Your task to perform on an android device: add a contact in the contacts app Image 0: 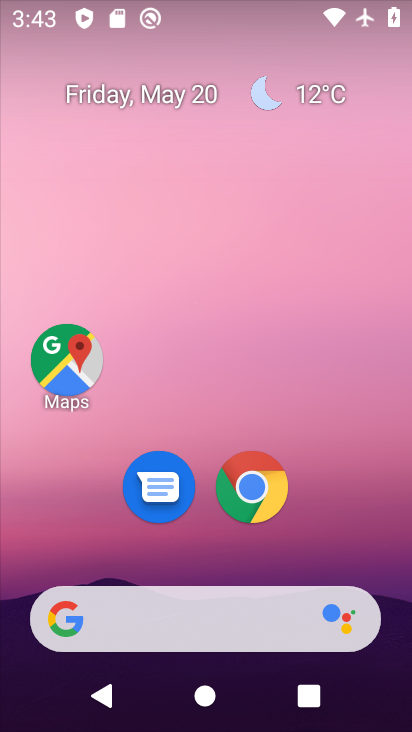
Step 0: drag from (310, 534) to (316, 12)
Your task to perform on an android device: add a contact in the contacts app Image 1: 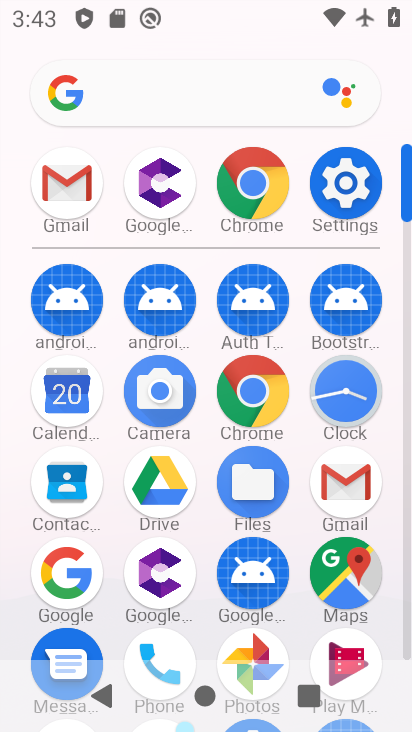
Step 1: click (59, 493)
Your task to perform on an android device: add a contact in the contacts app Image 2: 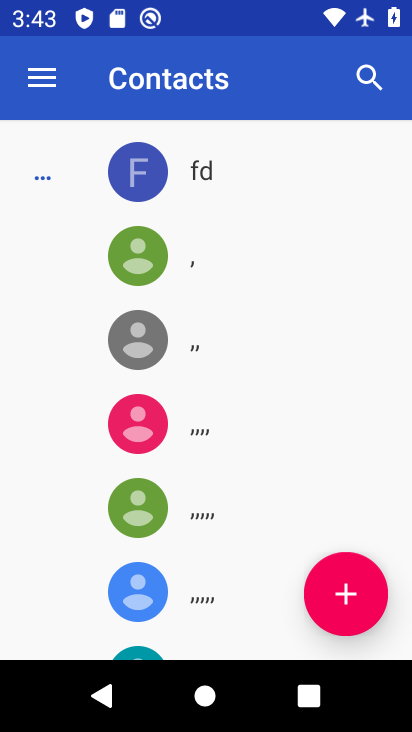
Step 2: click (346, 585)
Your task to perform on an android device: add a contact in the contacts app Image 3: 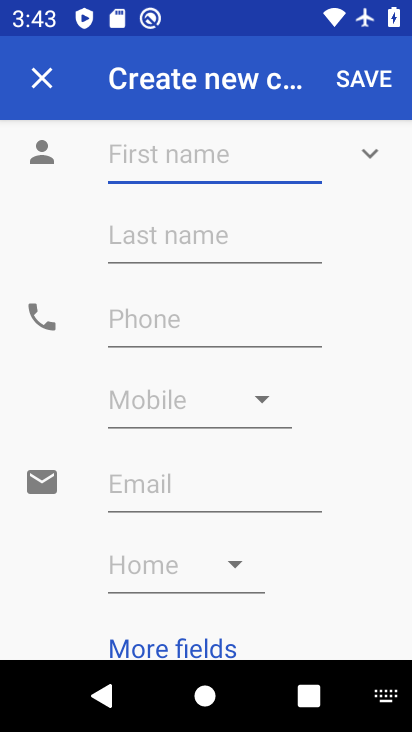
Step 3: click (174, 164)
Your task to perform on an android device: add a contact in the contacts app Image 4: 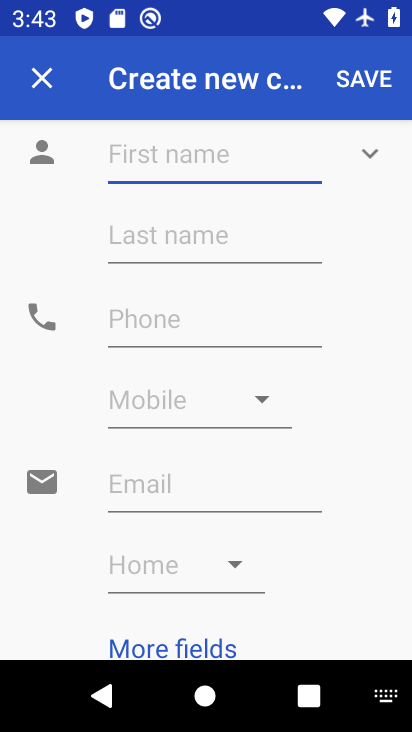
Step 4: type "Raju"
Your task to perform on an android device: add a contact in the contacts app Image 5: 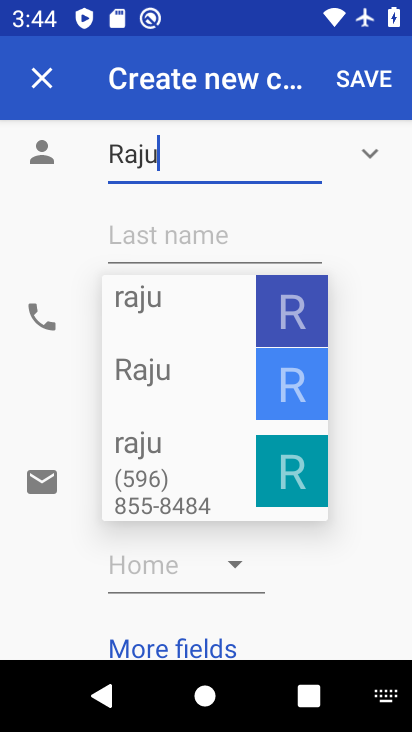
Step 5: click (234, 261)
Your task to perform on an android device: add a contact in the contacts app Image 6: 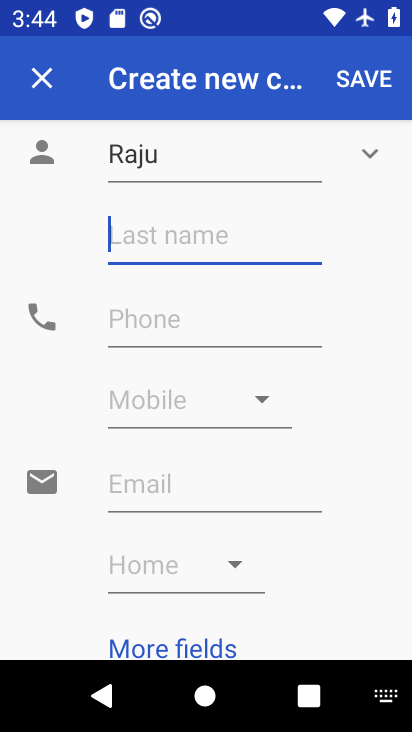
Step 6: click (186, 240)
Your task to perform on an android device: add a contact in the contacts app Image 7: 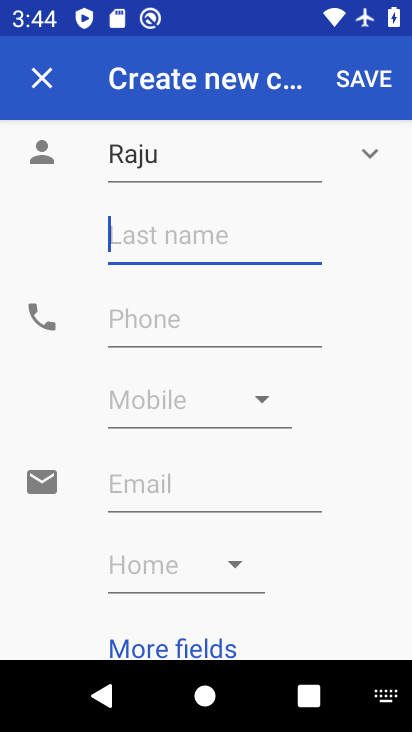
Step 7: type "verma"
Your task to perform on an android device: add a contact in the contacts app Image 8: 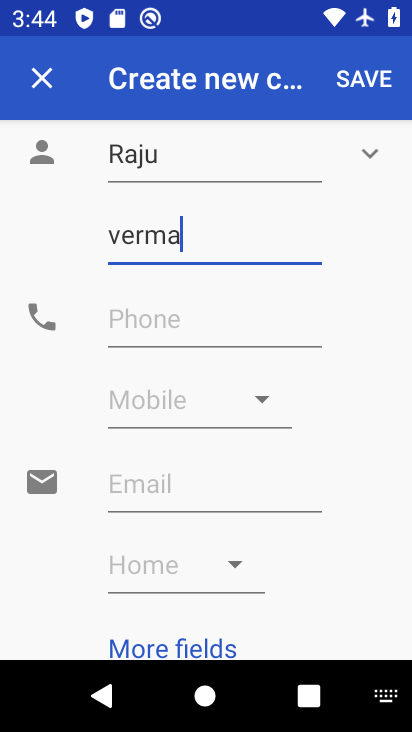
Step 8: click (147, 326)
Your task to perform on an android device: add a contact in the contacts app Image 9: 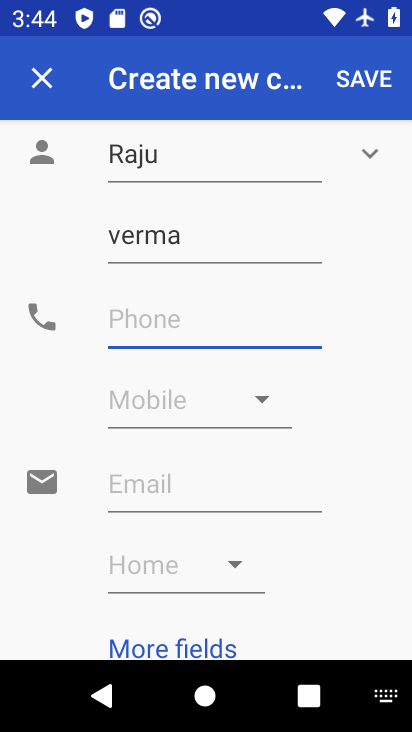
Step 9: type "7878887900"
Your task to perform on an android device: add a contact in the contacts app Image 10: 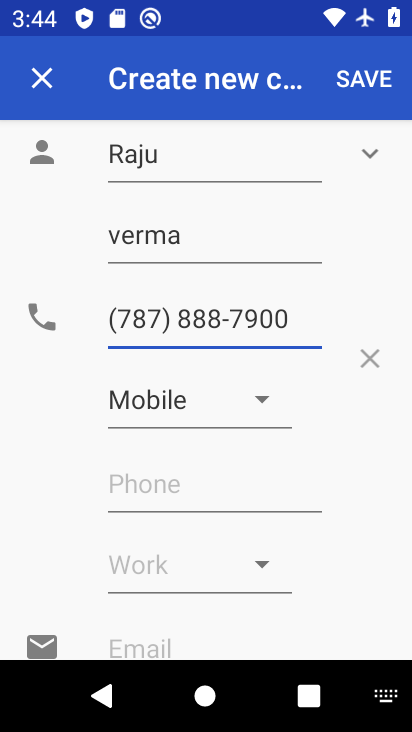
Step 10: click (359, 82)
Your task to perform on an android device: add a contact in the contacts app Image 11: 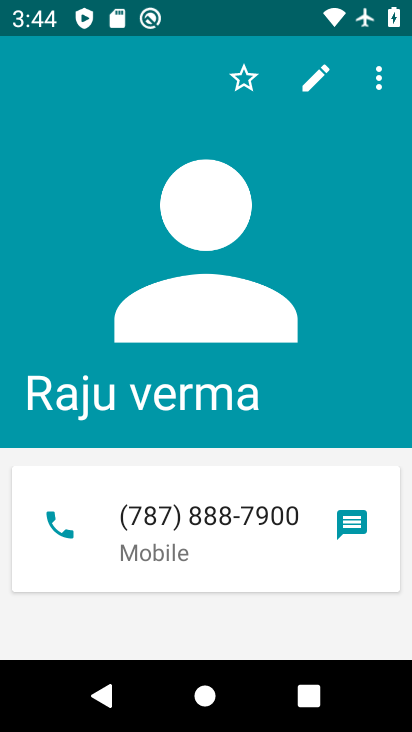
Step 11: task complete